Your task to perform on an android device: Go to Yahoo.com Image 0: 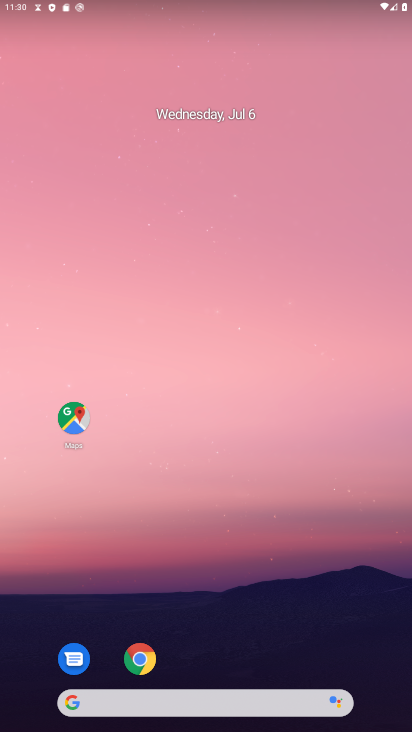
Step 0: click (156, 698)
Your task to perform on an android device: Go to Yahoo.com Image 1: 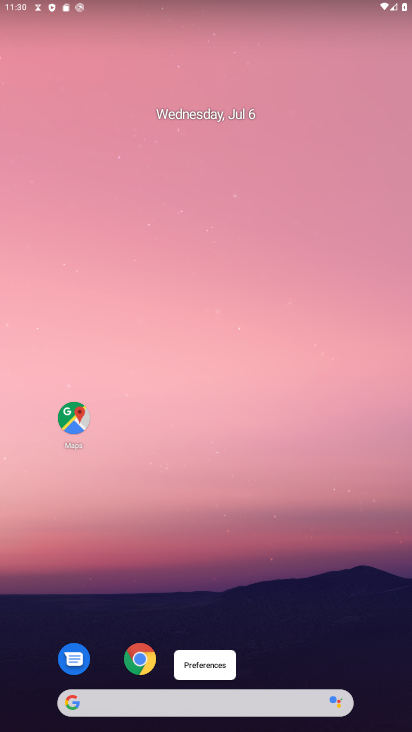
Step 1: click (209, 706)
Your task to perform on an android device: Go to Yahoo.com Image 2: 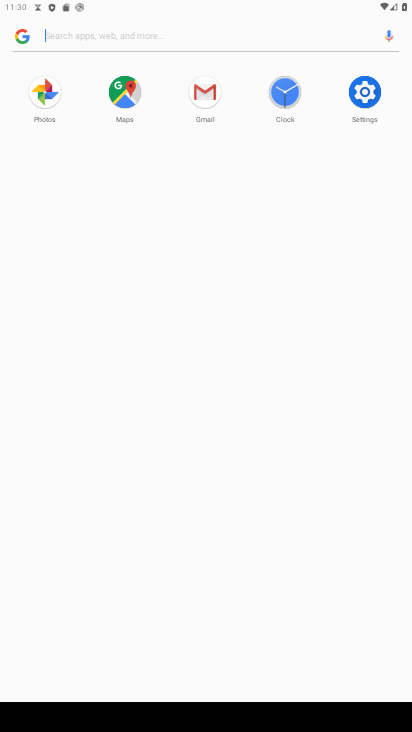
Step 2: type "yahoo.com"
Your task to perform on an android device: Go to Yahoo.com Image 3: 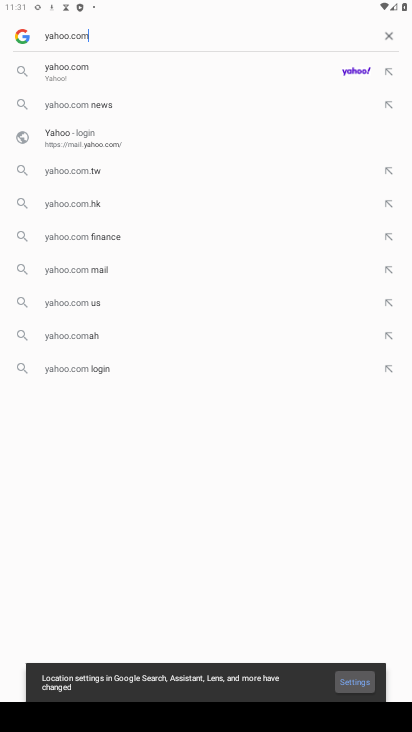
Step 3: click (118, 81)
Your task to perform on an android device: Go to Yahoo.com Image 4: 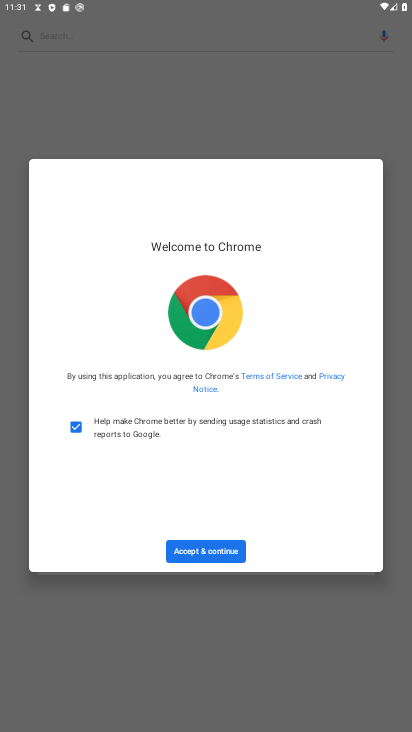
Step 4: click (201, 552)
Your task to perform on an android device: Go to Yahoo.com Image 5: 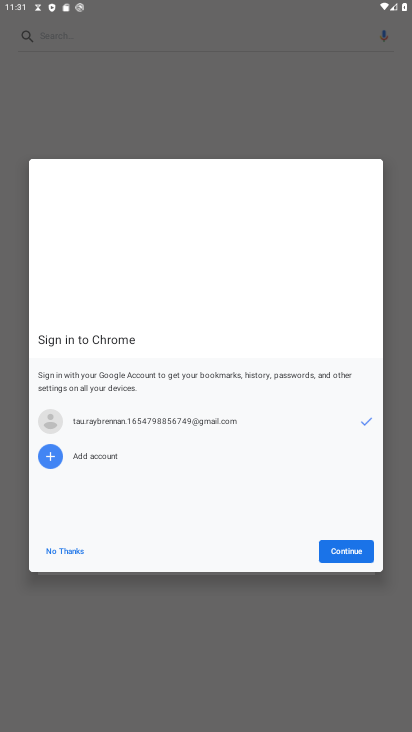
Step 5: click (350, 563)
Your task to perform on an android device: Go to Yahoo.com Image 6: 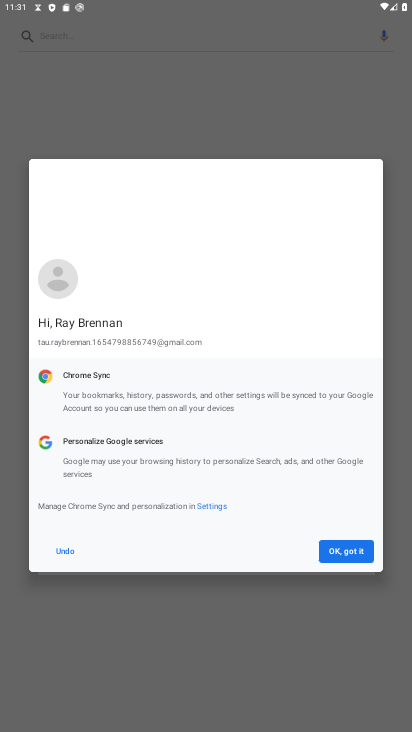
Step 6: click (370, 547)
Your task to perform on an android device: Go to Yahoo.com Image 7: 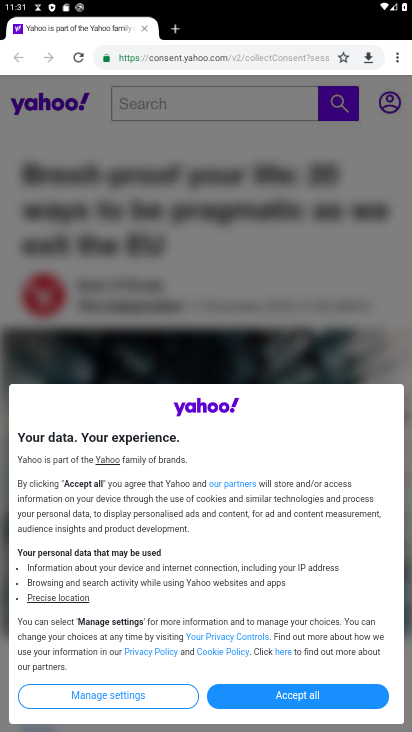
Step 7: click (299, 698)
Your task to perform on an android device: Go to Yahoo.com Image 8: 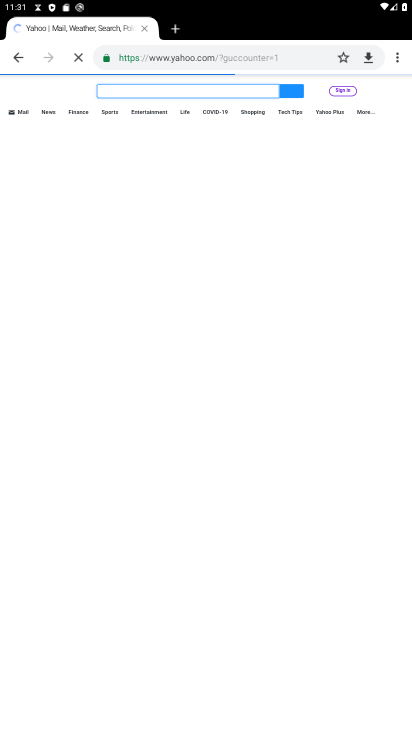
Step 8: click (299, 686)
Your task to perform on an android device: Go to Yahoo.com Image 9: 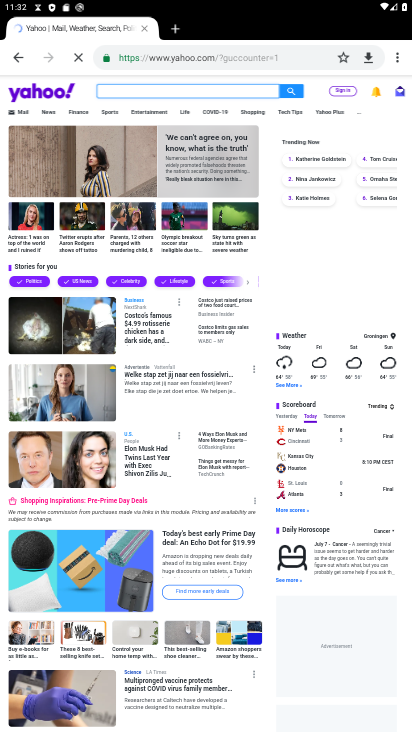
Step 9: task complete